Your task to perform on an android device: Open calendar and show me the second week of next month Image 0: 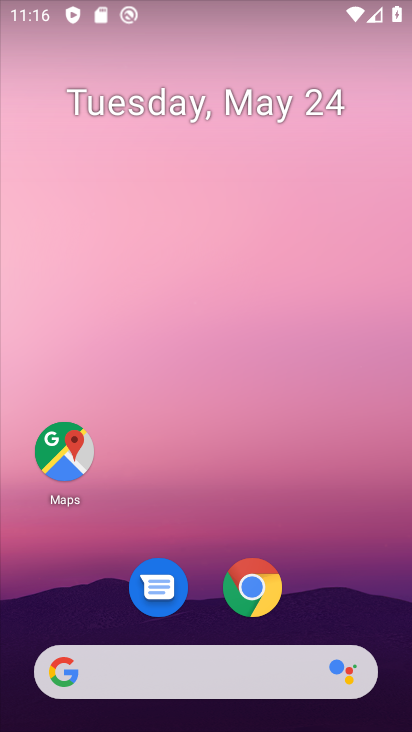
Step 0: drag from (328, 613) to (110, 97)
Your task to perform on an android device: Open calendar and show me the second week of next month Image 1: 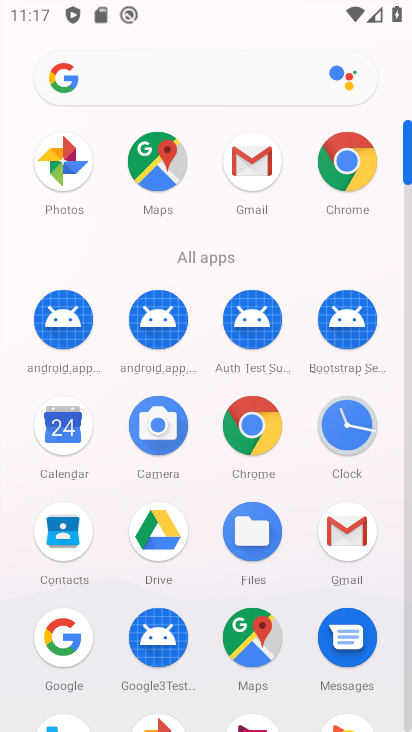
Step 1: click (63, 432)
Your task to perform on an android device: Open calendar and show me the second week of next month Image 2: 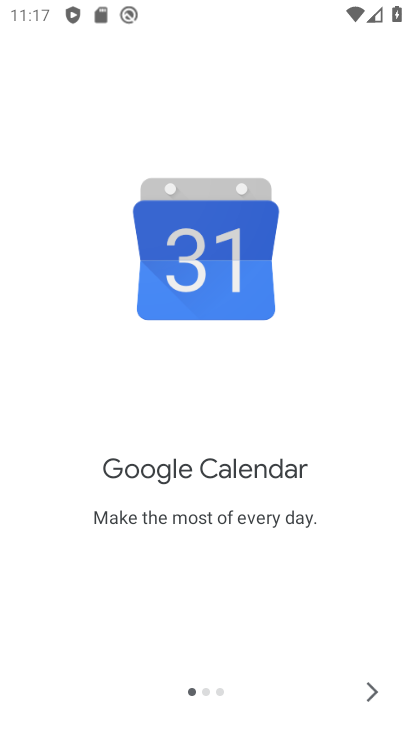
Step 2: click (376, 695)
Your task to perform on an android device: Open calendar and show me the second week of next month Image 3: 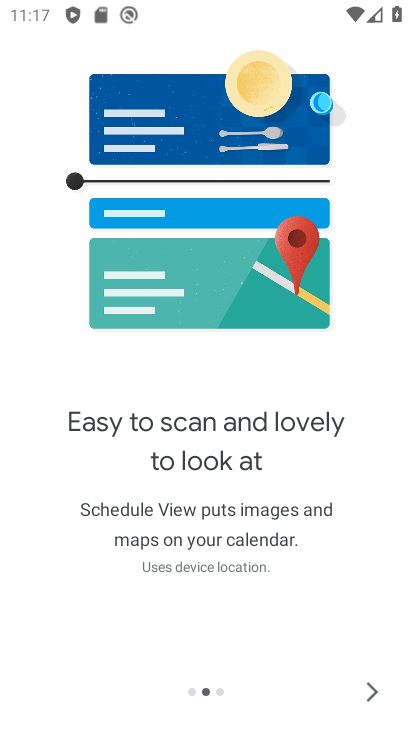
Step 3: click (376, 695)
Your task to perform on an android device: Open calendar and show me the second week of next month Image 4: 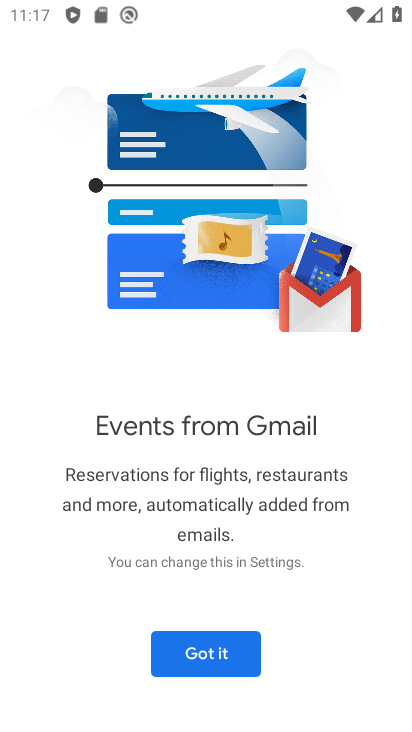
Step 4: click (201, 660)
Your task to perform on an android device: Open calendar and show me the second week of next month Image 5: 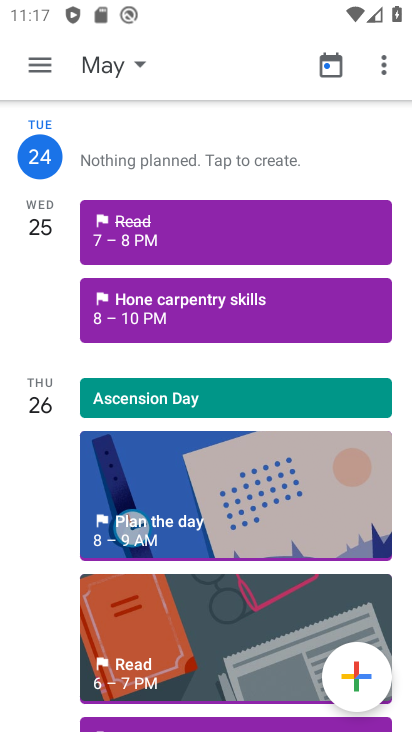
Step 5: click (95, 66)
Your task to perform on an android device: Open calendar and show me the second week of next month Image 6: 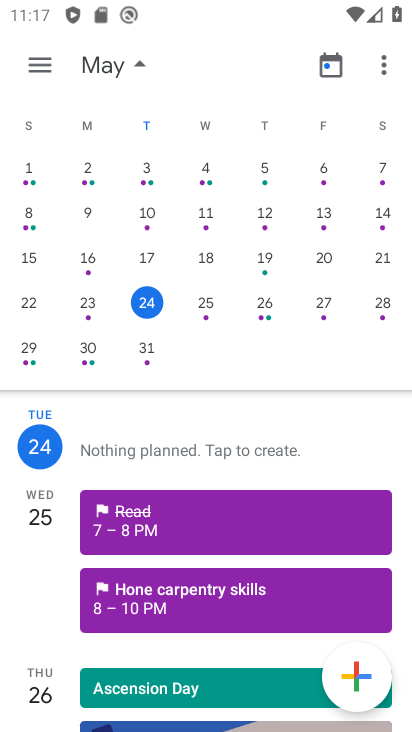
Step 6: drag from (341, 274) to (21, 270)
Your task to perform on an android device: Open calendar and show me the second week of next month Image 7: 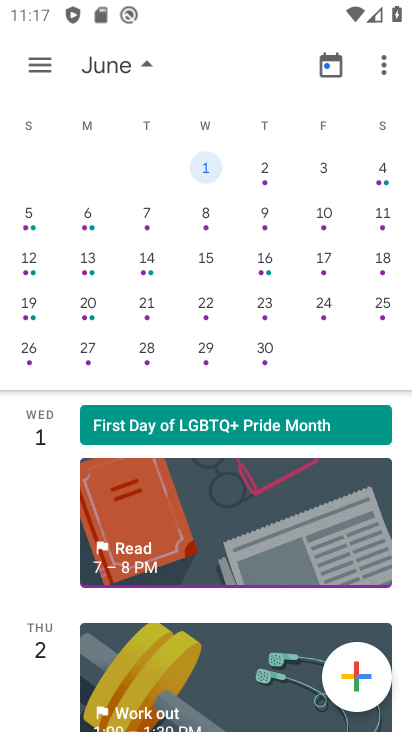
Step 7: click (26, 222)
Your task to perform on an android device: Open calendar and show me the second week of next month Image 8: 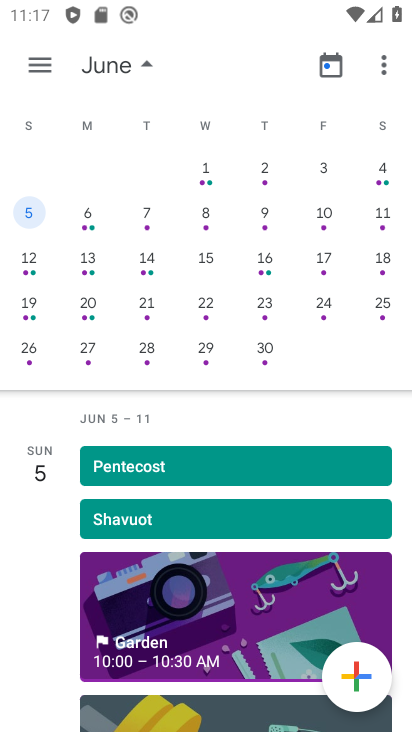
Step 8: click (38, 59)
Your task to perform on an android device: Open calendar and show me the second week of next month Image 9: 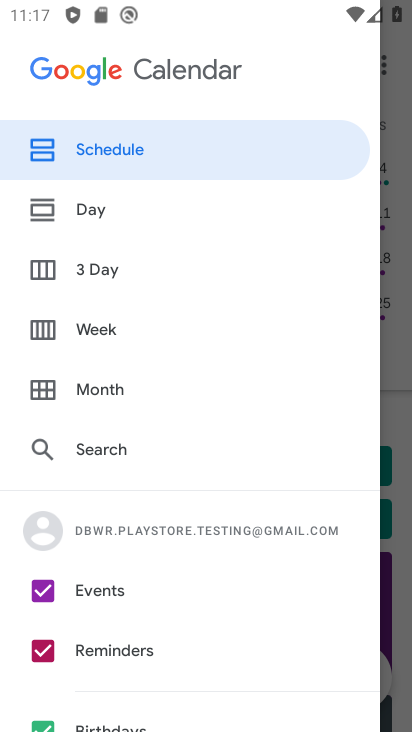
Step 9: click (56, 323)
Your task to perform on an android device: Open calendar and show me the second week of next month Image 10: 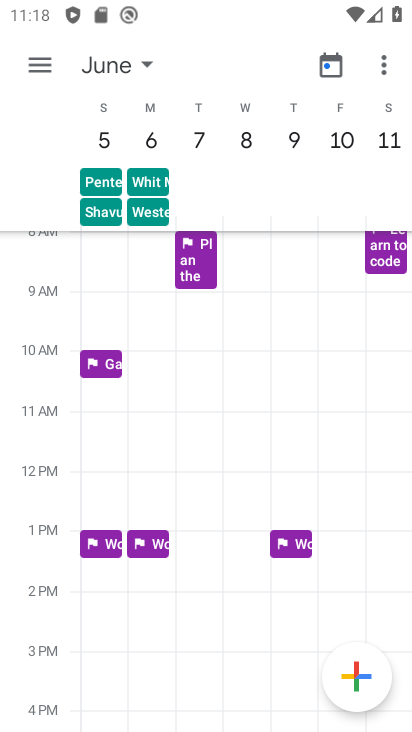
Step 10: task complete